Your task to perform on an android device: Open the calendar and show me this week's events? Image 0: 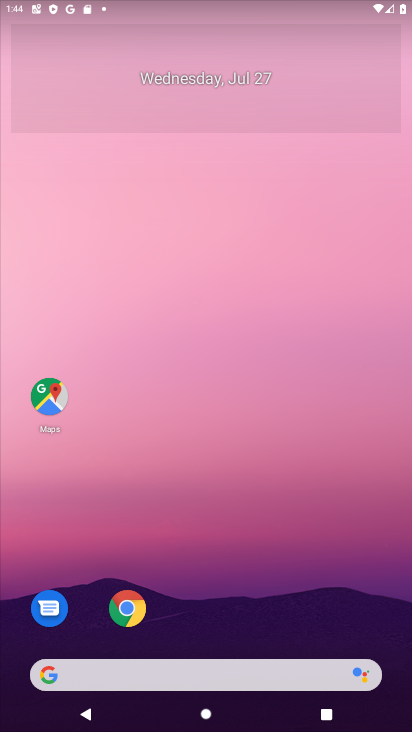
Step 0: drag from (52, 698) to (231, 309)
Your task to perform on an android device: Open the calendar and show me this week's events? Image 1: 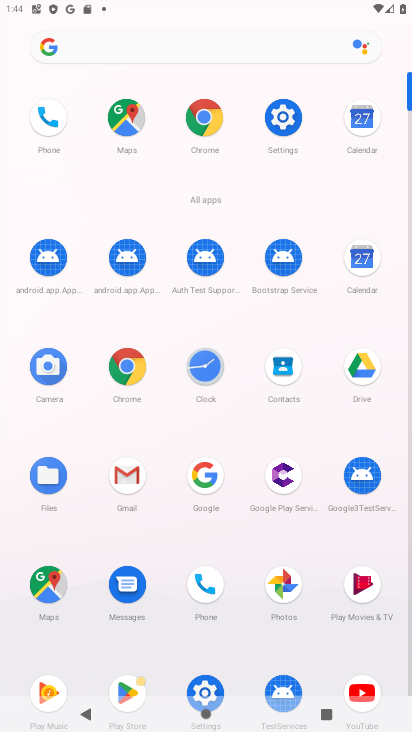
Step 1: click (363, 249)
Your task to perform on an android device: Open the calendar and show me this week's events? Image 2: 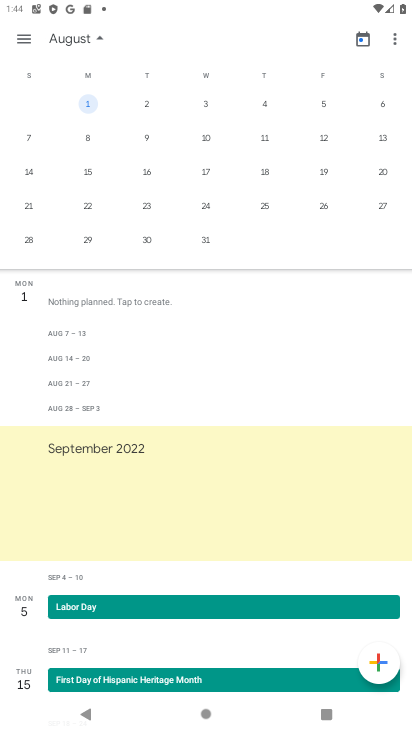
Step 2: task complete